Your task to perform on an android device: turn off javascript in the chrome app Image 0: 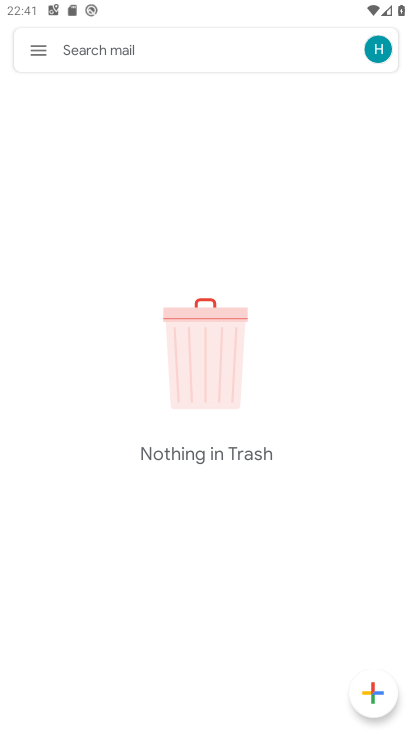
Step 0: drag from (254, 455) to (316, 221)
Your task to perform on an android device: turn off javascript in the chrome app Image 1: 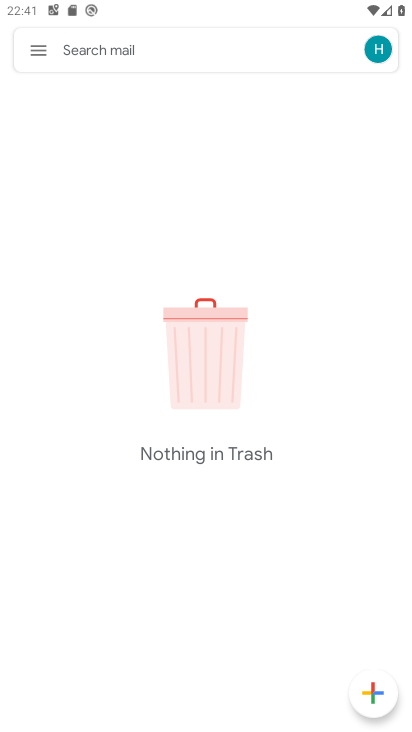
Step 1: press home button
Your task to perform on an android device: turn off javascript in the chrome app Image 2: 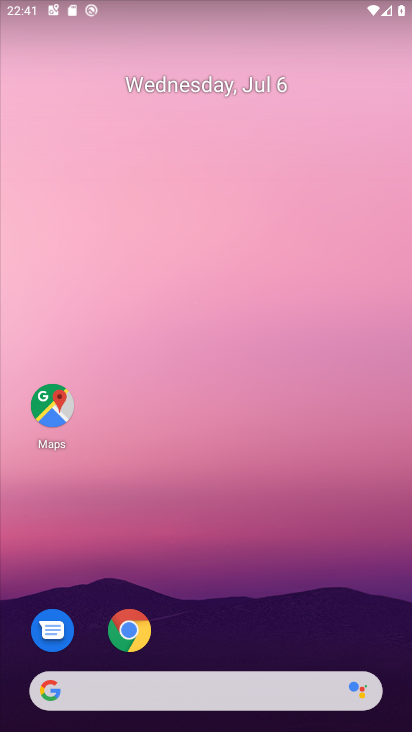
Step 2: drag from (218, 536) to (310, 35)
Your task to perform on an android device: turn off javascript in the chrome app Image 3: 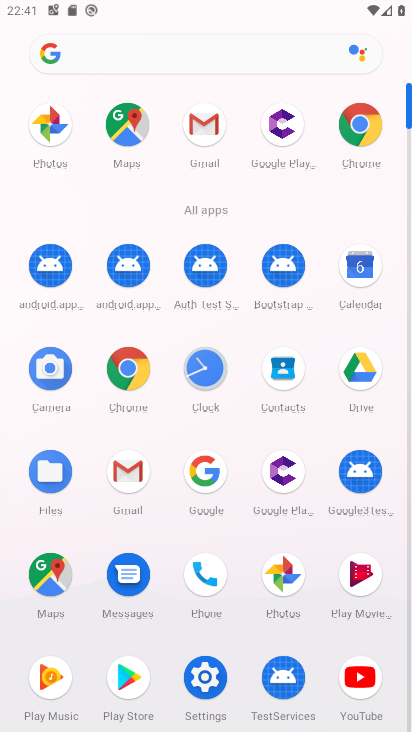
Step 3: click (364, 127)
Your task to perform on an android device: turn off javascript in the chrome app Image 4: 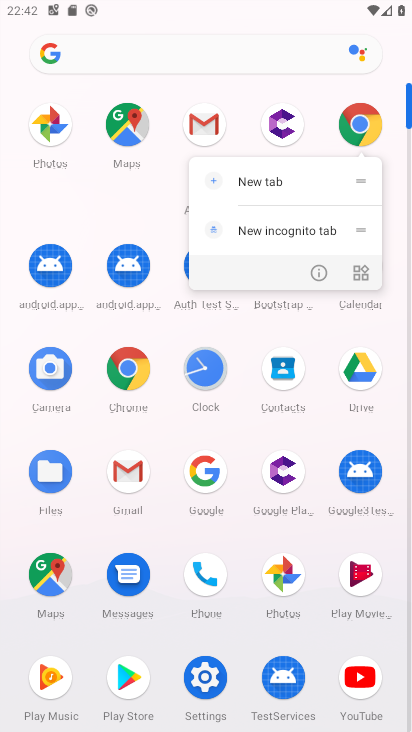
Step 4: click (317, 273)
Your task to perform on an android device: turn off javascript in the chrome app Image 5: 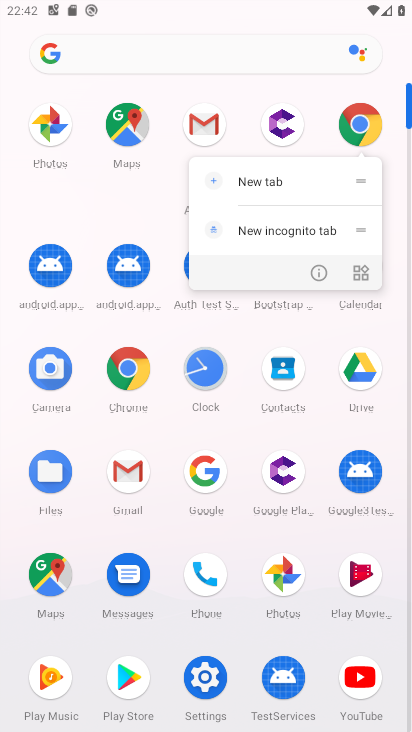
Step 5: click (317, 271)
Your task to perform on an android device: turn off javascript in the chrome app Image 6: 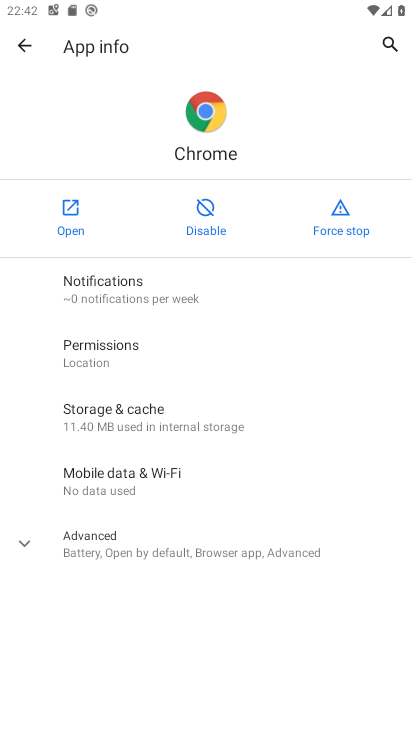
Step 6: click (71, 220)
Your task to perform on an android device: turn off javascript in the chrome app Image 7: 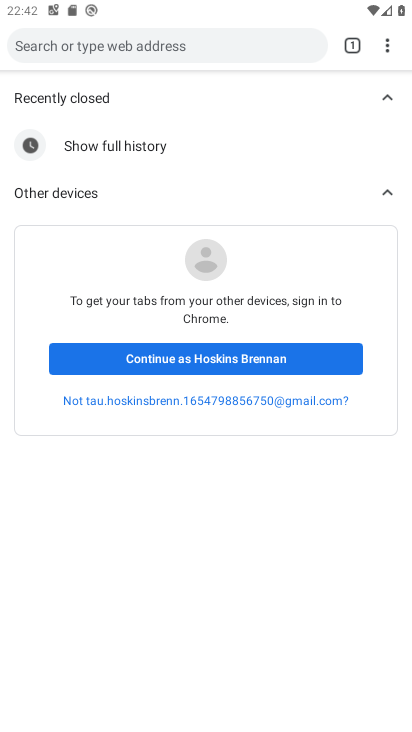
Step 7: click (391, 34)
Your task to perform on an android device: turn off javascript in the chrome app Image 8: 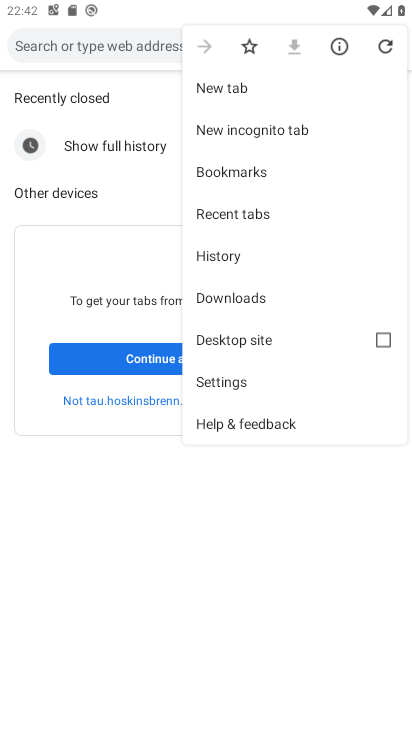
Step 8: click (237, 378)
Your task to perform on an android device: turn off javascript in the chrome app Image 9: 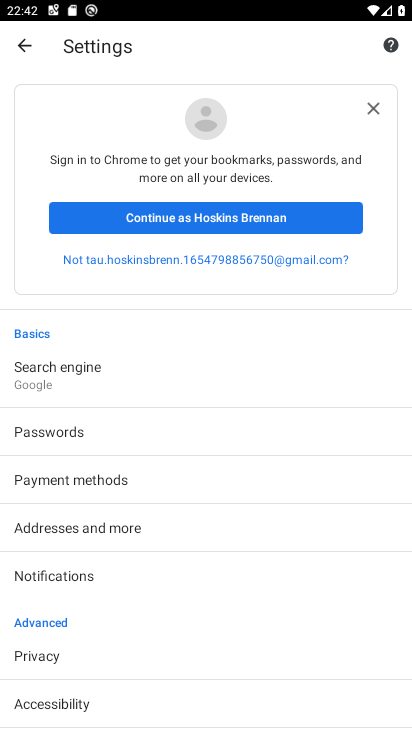
Step 9: drag from (157, 557) to (235, 277)
Your task to perform on an android device: turn off javascript in the chrome app Image 10: 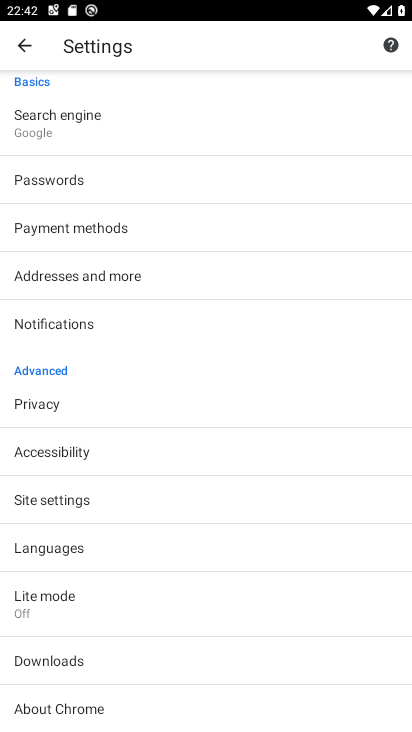
Step 10: click (110, 493)
Your task to perform on an android device: turn off javascript in the chrome app Image 11: 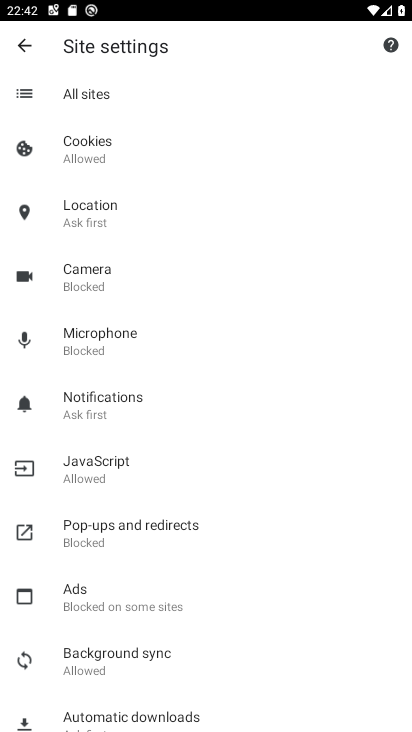
Step 11: click (102, 469)
Your task to perform on an android device: turn off javascript in the chrome app Image 12: 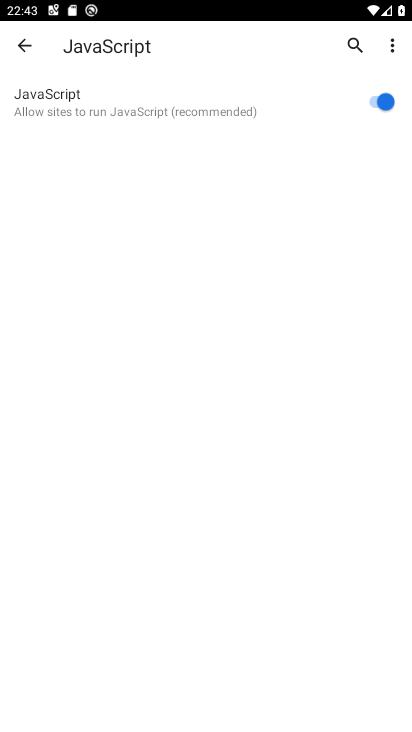
Step 12: drag from (166, 532) to (227, 211)
Your task to perform on an android device: turn off javascript in the chrome app Image 13: 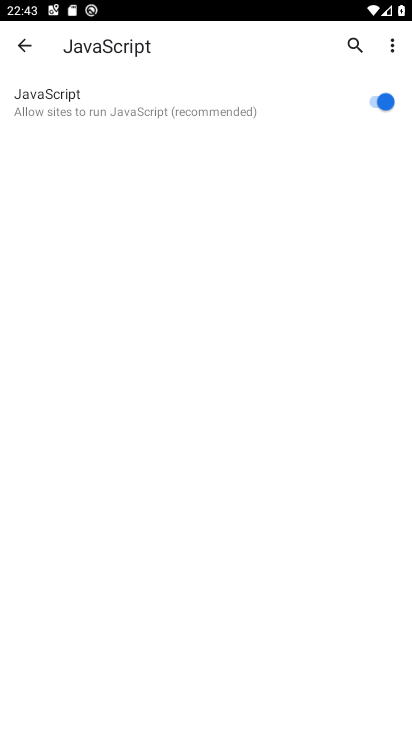
Step 13: drag from (139, 387) to (230, 112)
Your task to perform on an android device: turn off javascript in the chrome app Image 14: 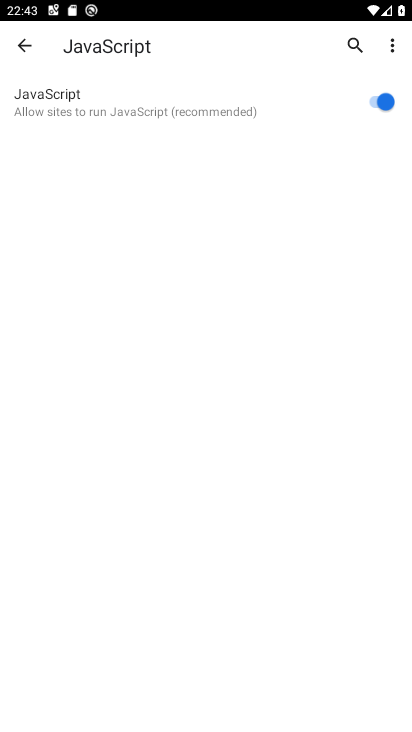
Step 14: drag from (175, 404) to (246, 89)
Your task to perform on an android device: turn off javascript in the chrome app Image 15: 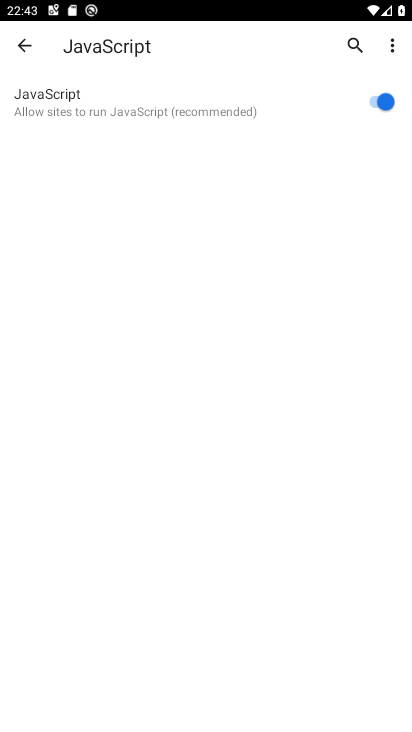
Step 15: click (371, 102)
Your task to perform on an android device: turn off javascript in the chrome app Image 16: 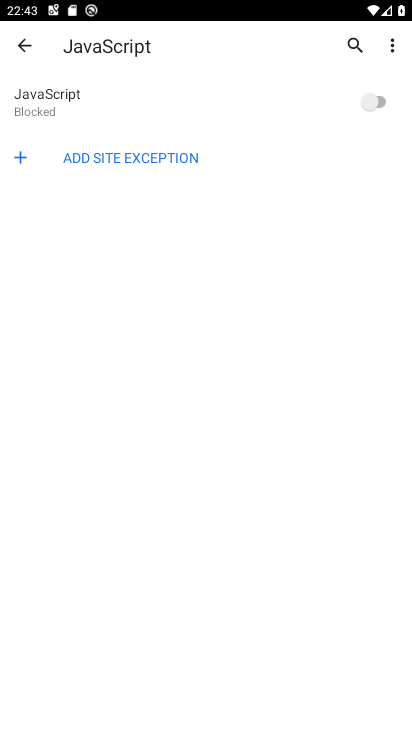
Step 16: task complete